Your task to perform on an android device: Search for Mexican restaurants on Maps Image 0: 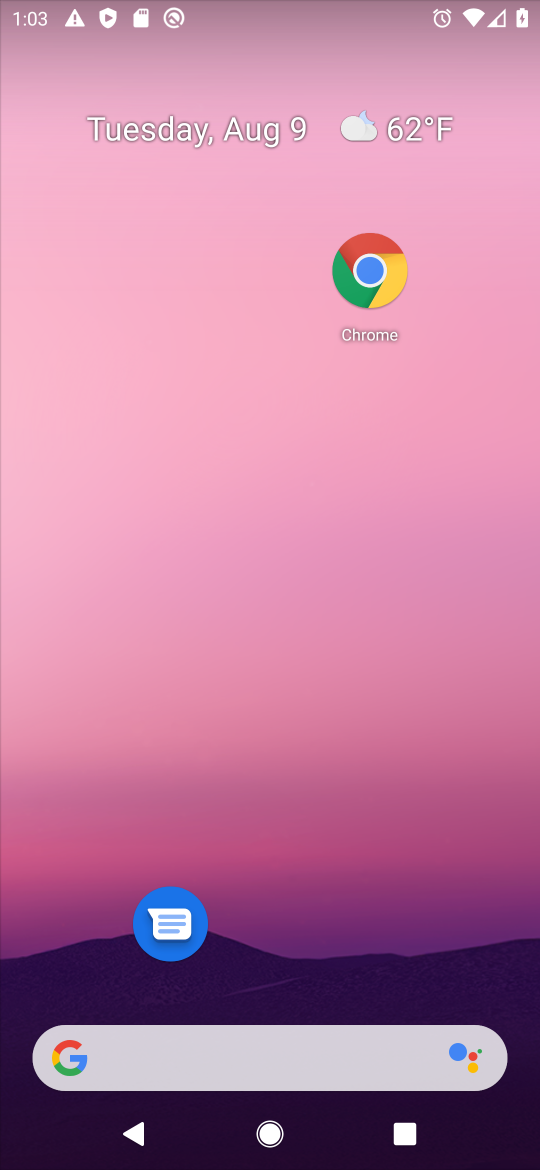
Step 0: drag from (333, 1004) to (292, 36)
Your task to perform on an android device: Search for Mexican restaurants on Maps Image 1: 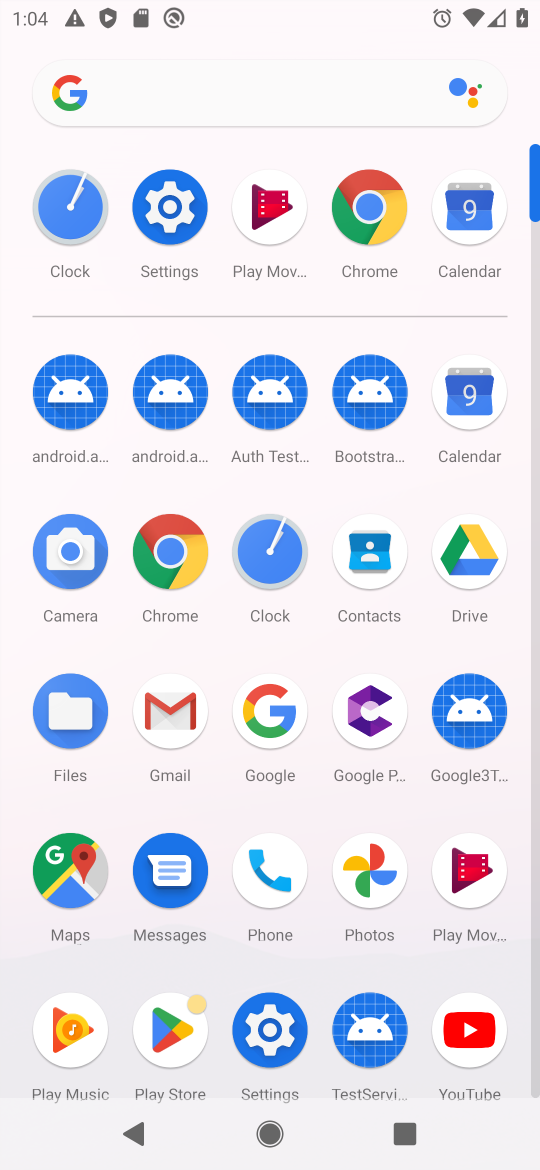
Step 1: click (64, 883)
Your task to perform on an android device: Search for Mexican restaurants on Maps Image 2: 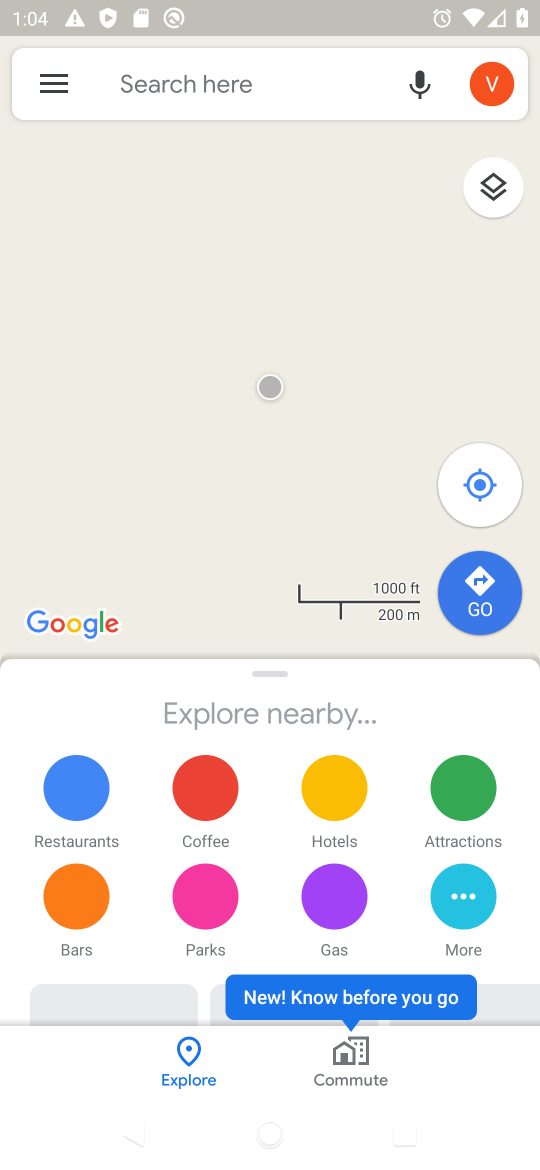
Step 2: task complete